Your task to perform on an android device: open the mobile data screen to see how much data has been used Image 0: 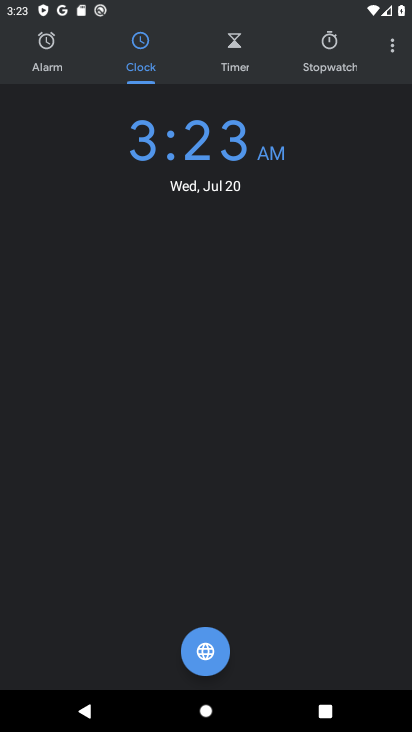
Step 0: press home button
Your task to perform on an android device: open the mobile data screen to see how much data has been used Image 1: 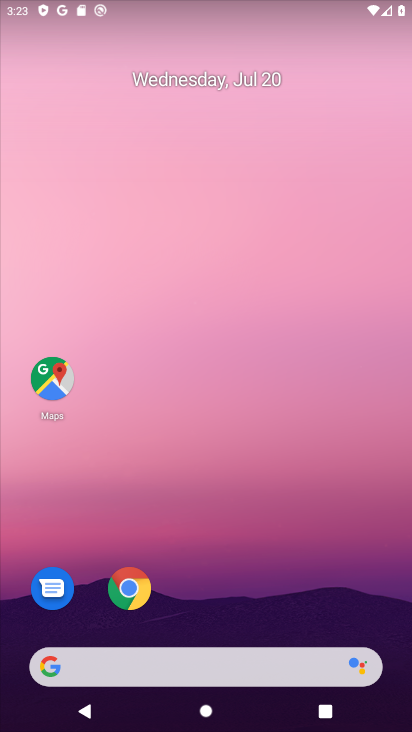
Step 1: drag from (196, 14) to (201, 679)
Your task to perform on an android device: open the mobile data screen to see how much data has been used Image 2: 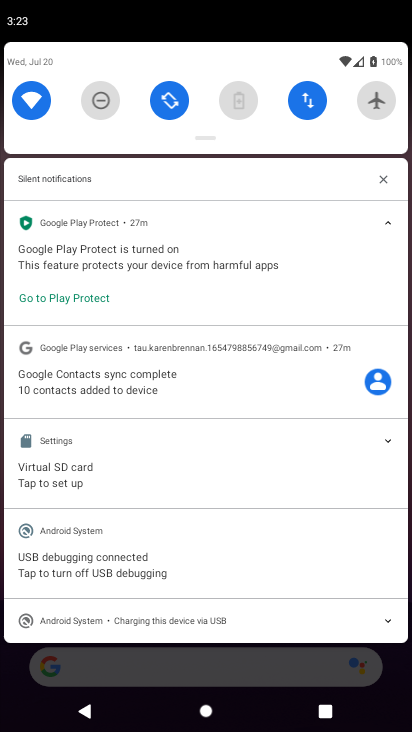
Step 2: click (306, 115)
Your task to perform on an android device: open the mobile data screen to see how much data has been used Image 3: 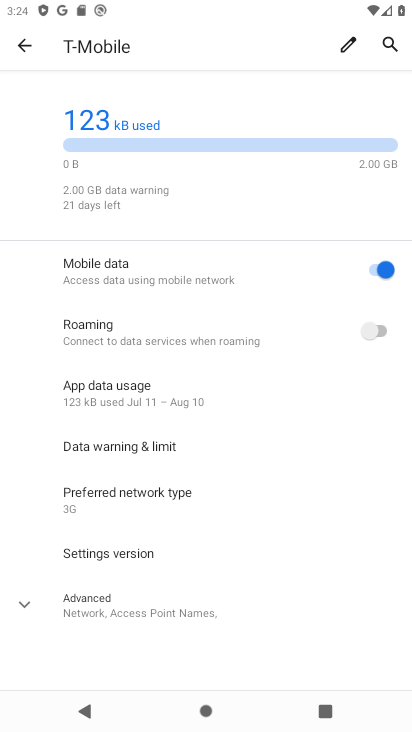
Step 3: task complete